Your task to perform on an android device: turn on the 24-hour format for clock Image 0: 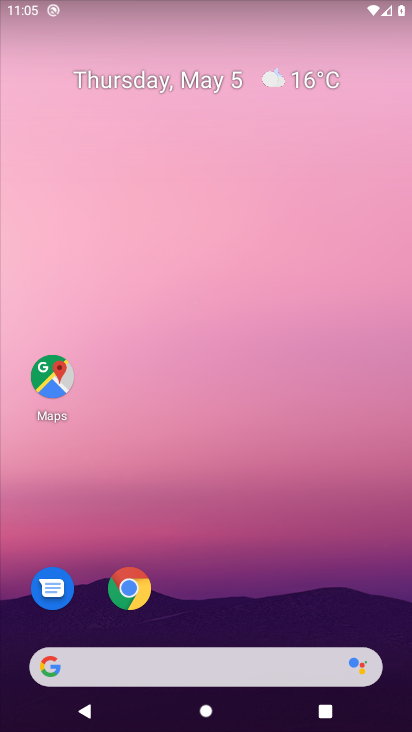
Step 0: drag from (258, 594) to (259, 141)
Your task to perform on an android device: turn on the 24-hour format for clock Image 1: 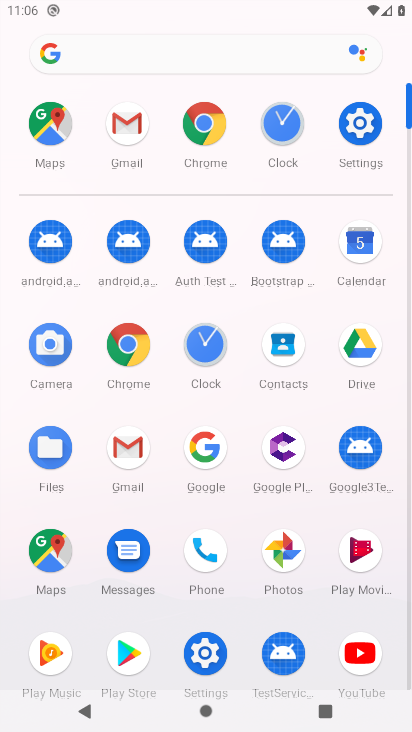
Step 1: click (295, 123)
Your task to perform on an android device: turn on the 24-hour format for clock Image 2: 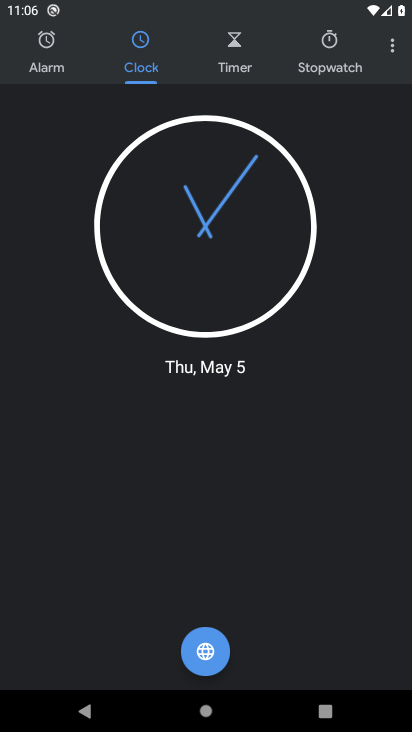
Step 2: click (397, 60)
Your task to perform on an android device: turn on the 24-hour format for clock Image 3: 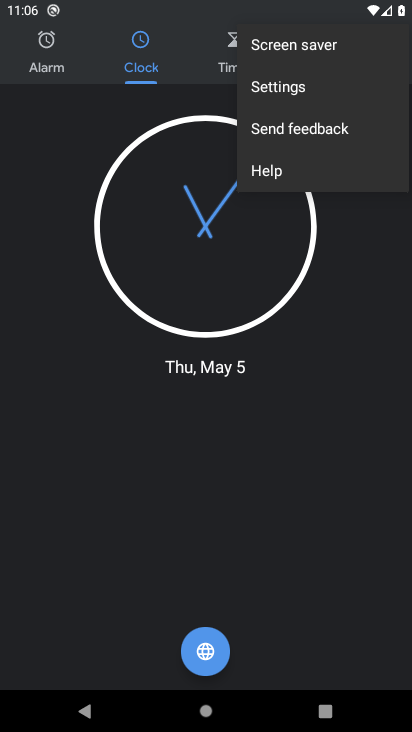
Step 3: click (354, 85)
Your task to perform on an android device: turn on the 24-hour format for clock Image 4: 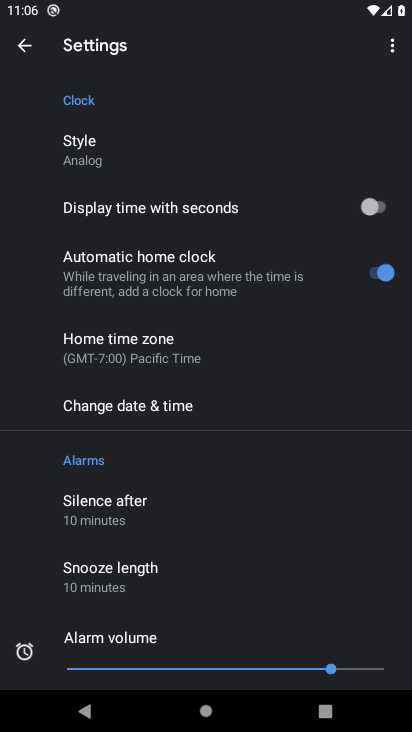
Step 4: click (229, 412)
Your task to perform on an android device: turn on the 24-hour format for clock Image 5: 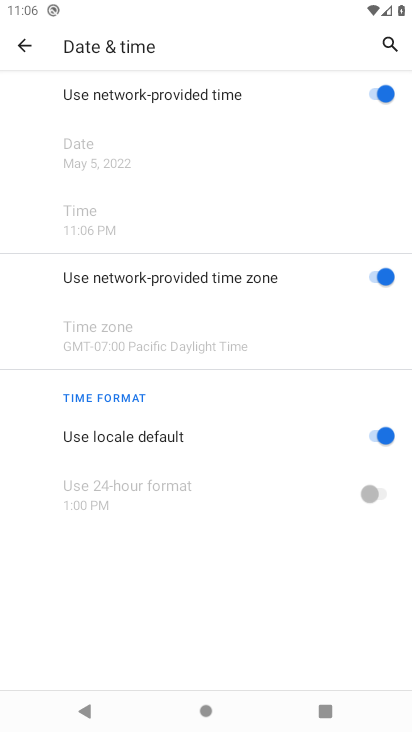
Step 5: click (374, 440)
Your task to perform on an android device: turn on the 24-hour format for clock Image 6: 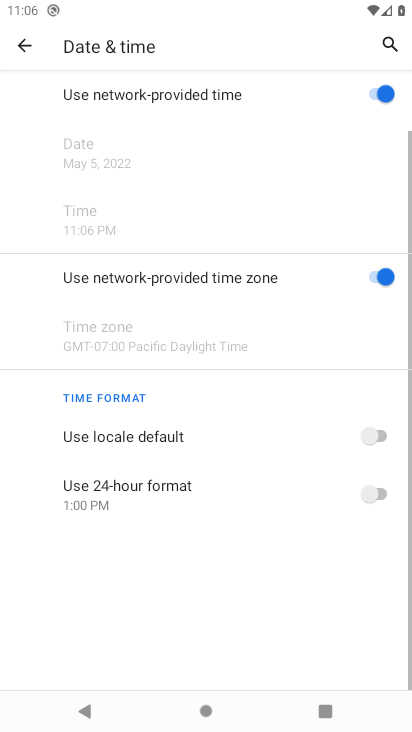
Step 6: click (381, 490)
Your task to perform on an android device: turn on the 24-hour format for clock Image 7: 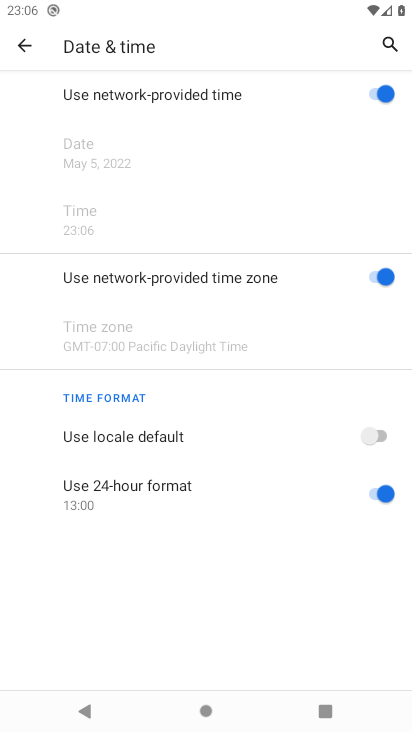
Step 7: task complete